Your task to perform on an android device: change the clock display to digital Image 0: 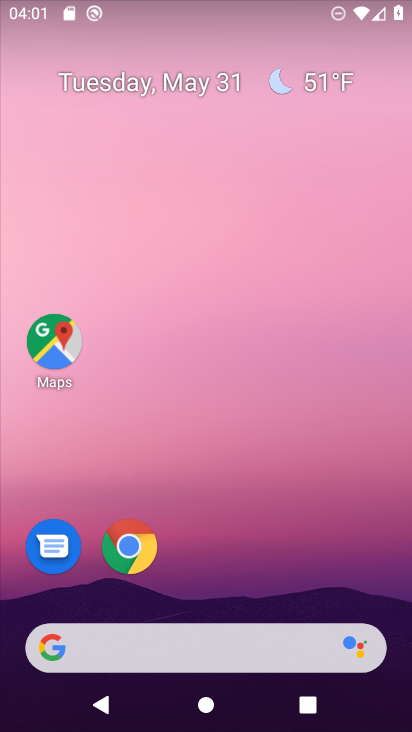
Step 0: drag from (221, 599) to (257, 173)
Your task to perform on an android device: change the clock display to digital Image 1: 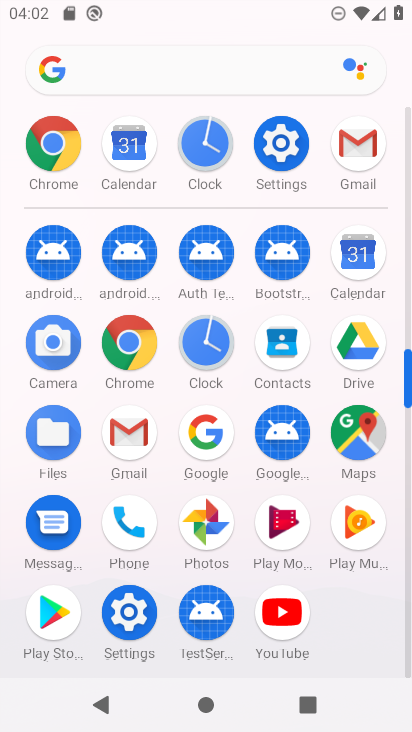
Step 1: click (195, 154)
Your task to perform on an android device: change the clock display to digital Image 2: 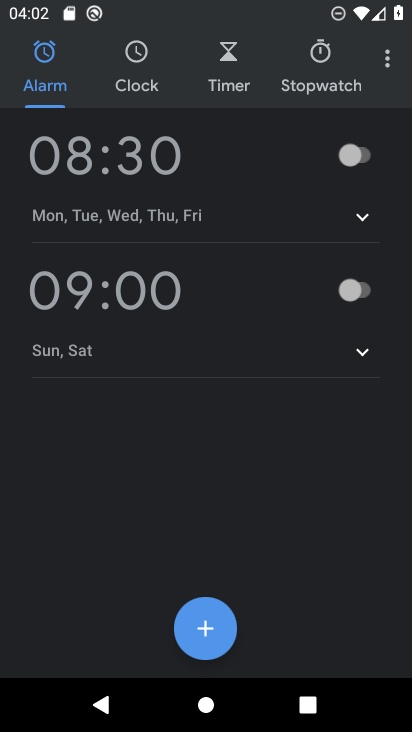
Step 2: click (388, 67)
Your task to perform on an android device: change the clock display to digital Image 3: 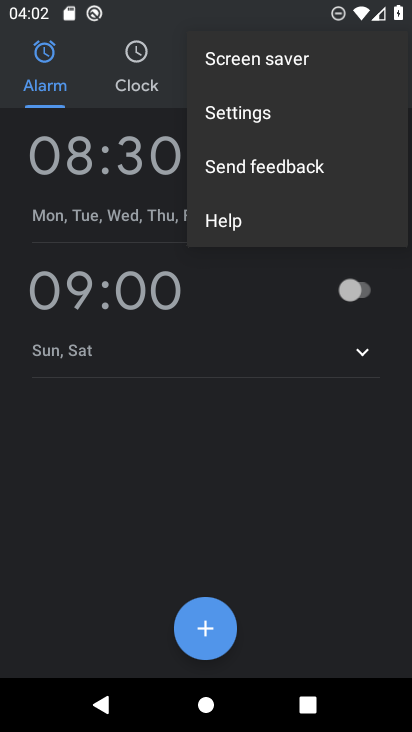
Step 3: click (238, 122)
Your task to perform on an android device: change the clock display to digital Image 4: 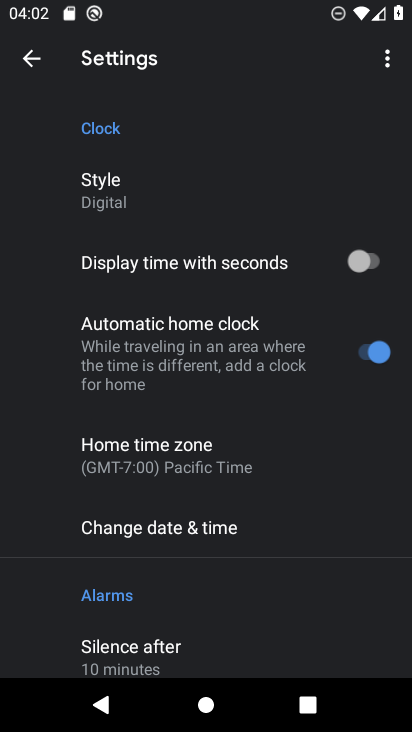
Step 4: task complete